Your task to perform on an android device: Is it going to rain tomorrow? Image 0: 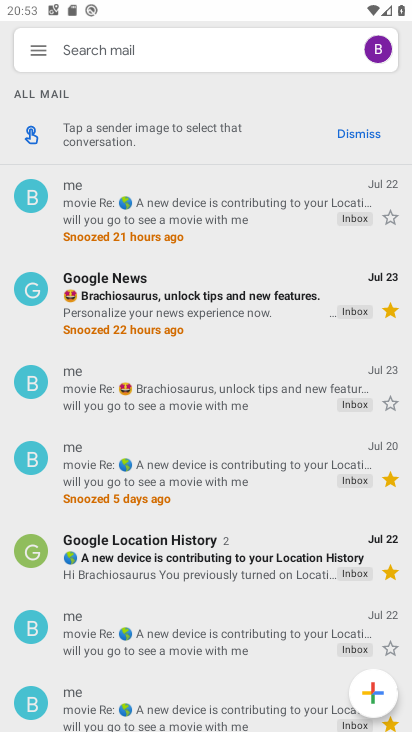
Step 0: press home button
Your task to perform on an android device: Is it going to rain tomorrow? Image 1: 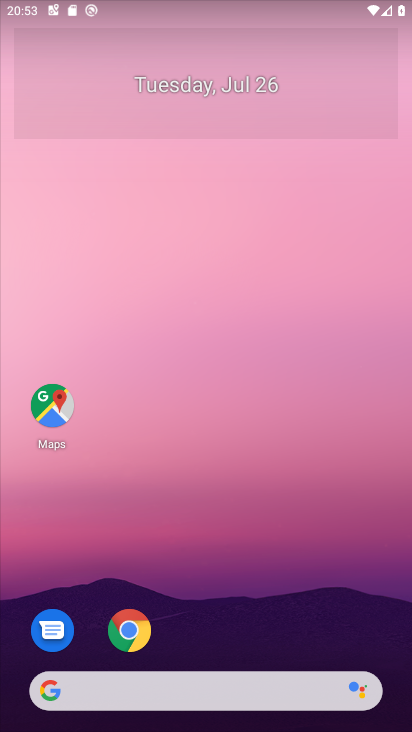
Step 1: drag from (1, 236) to (402, 186)
Your task to perform on an android device: Is it going to rain tomorrow? Image 2: 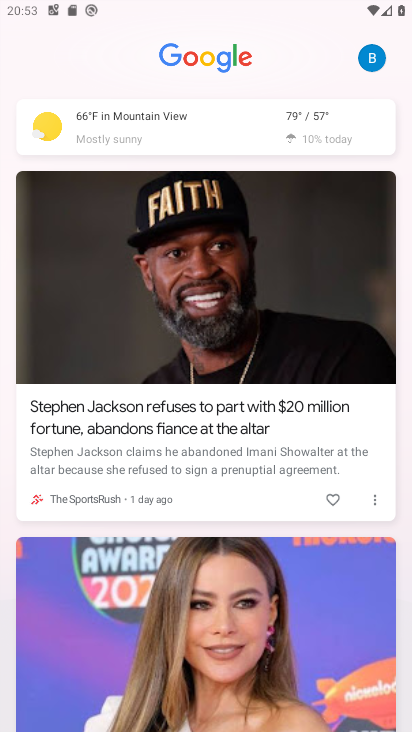
Step 2: click (317, 113)
Your task to perform on an android device: Is it going to rain tomorrow? Image 3: 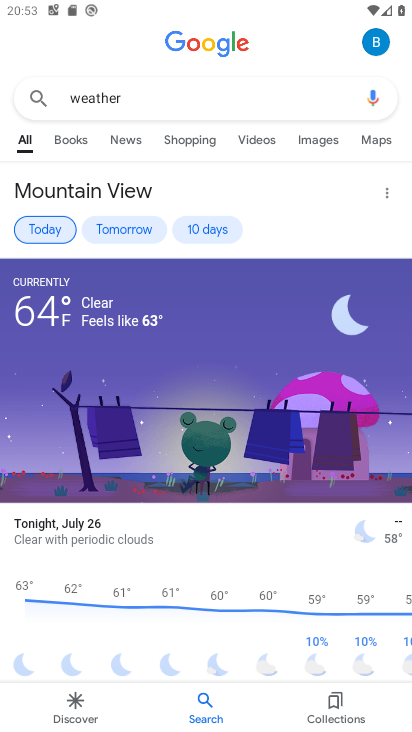
Step 3: click (104, 225)
Your task to perform on an android device: Is it going to rain tomorrow? Image 4: 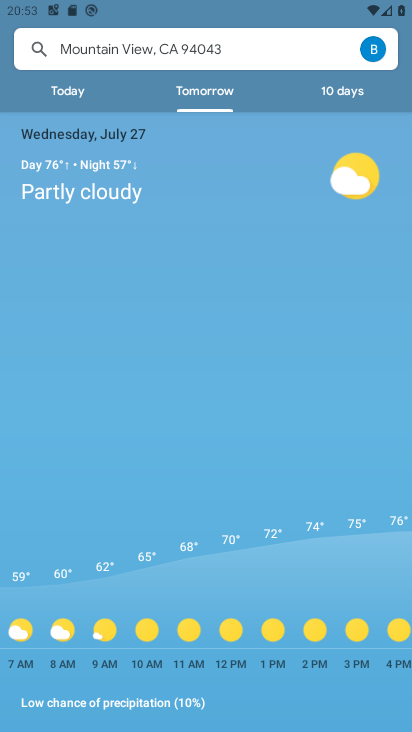
Step 4: task complete